Your task to perform on an android device: turn off location history Image 0: 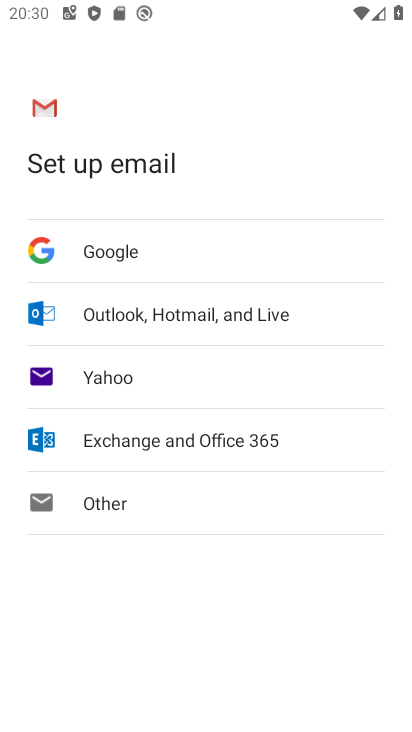
Step 0: press home button
Your task to perform on an android device: turn off location history Image 1: 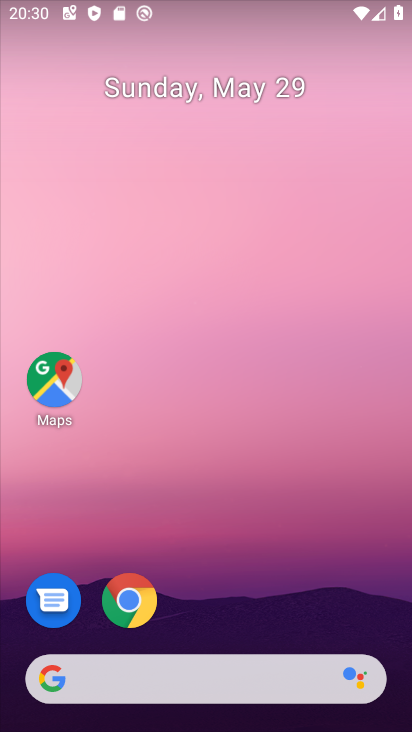
Step 1: drag from (348, 579) to (375, 117)
Your task to perform on an android device: turn off location history Image 2: 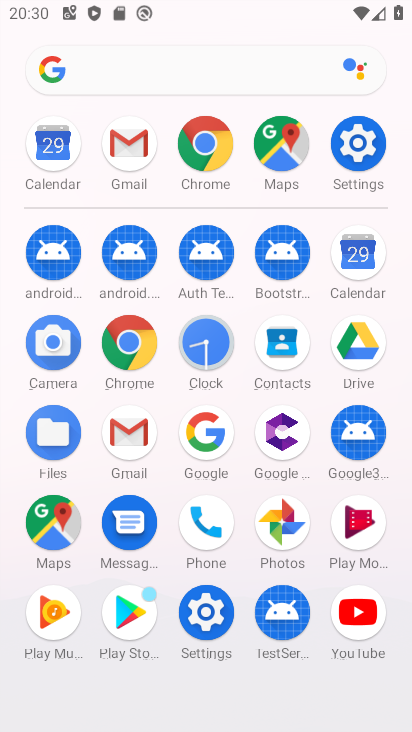
Step 2: click (366, 151)
Your task to perform on an android device: turn off location history Image 3: 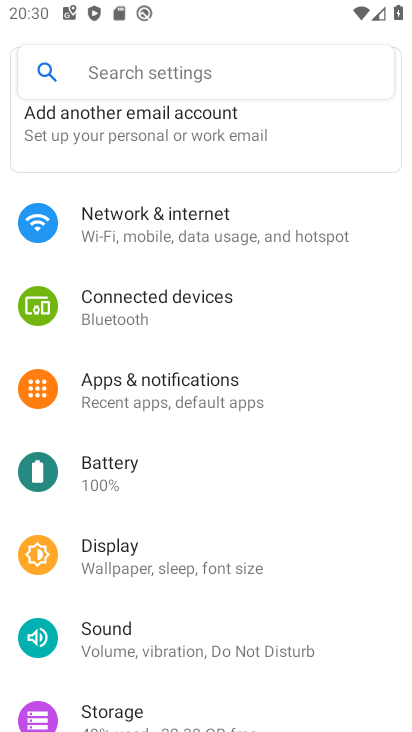
Step 3: drag from (287, 641) to (309, 410)
Your task to perform on an android device: turn off location history Image 4: 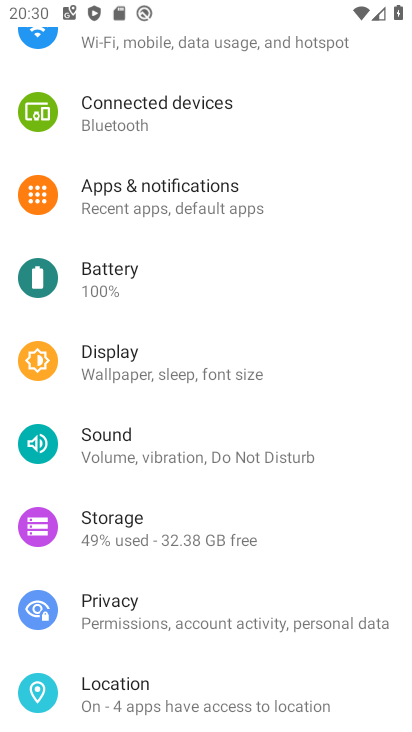
Step 4: click (183, 685)
Your task to perform on an android device: turn off location history Image 5: 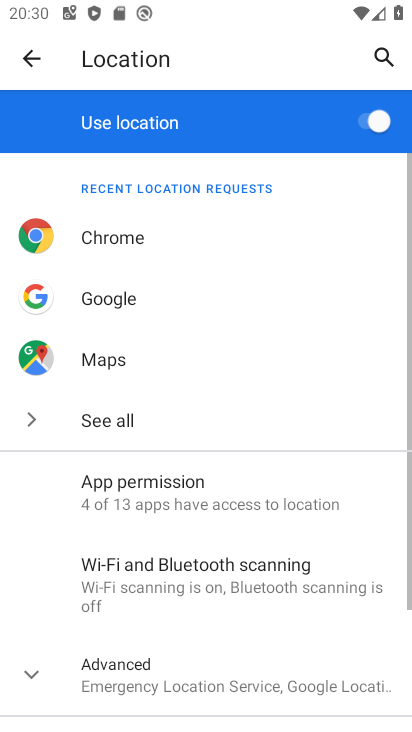
Step 5: drag from (243, 640) to (281, 326)
Your task to perform on an android device: turn off location history Image 6: 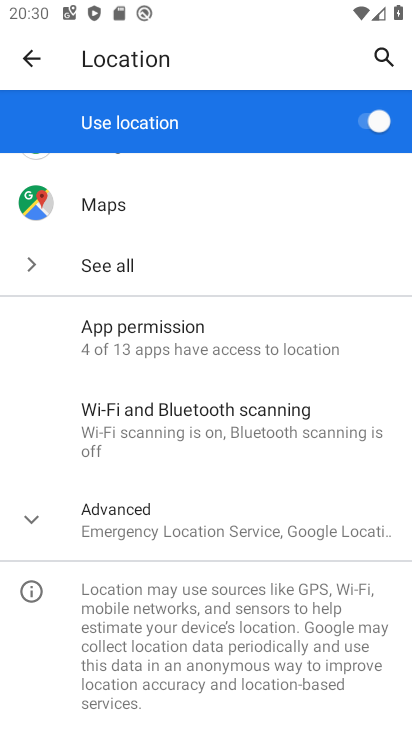
Step 6: click (326, 532)
Your task to perform on an android device: turn off location history Image 7: 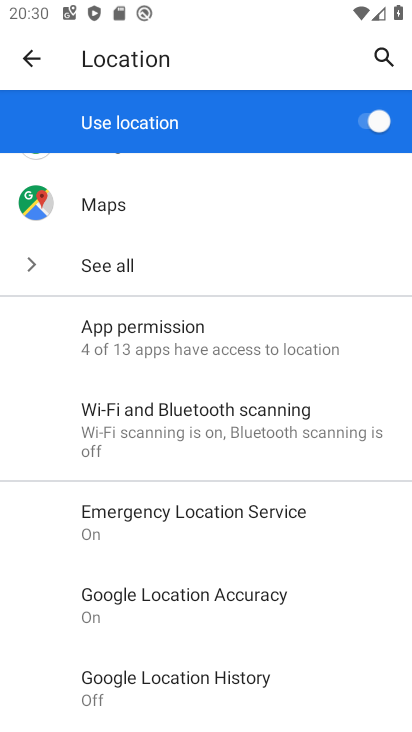
Step 7: drag from (224, 643) to (239, 434)
Your task to perform on an android device: turn off location history Image 8: 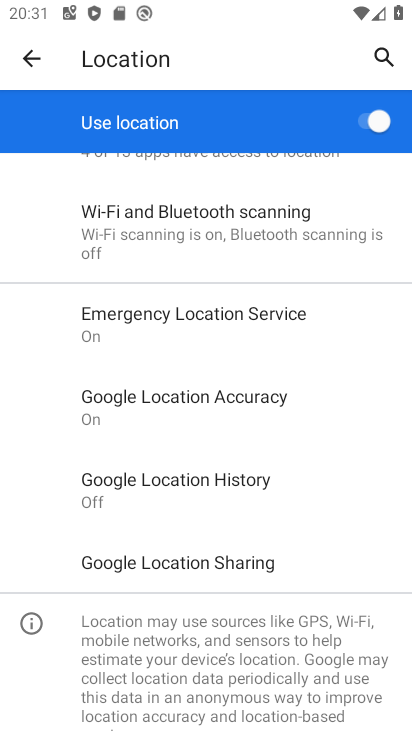
Step 8: click (219, 480)
Your task to perform on an android device: turn off location history Image 9: 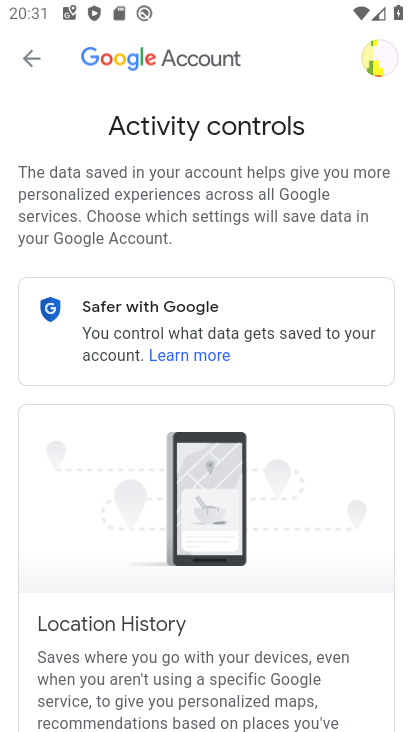
Step 9: task complete